Your task to perform on an android device: Do I have any events this weekend? Image 0: 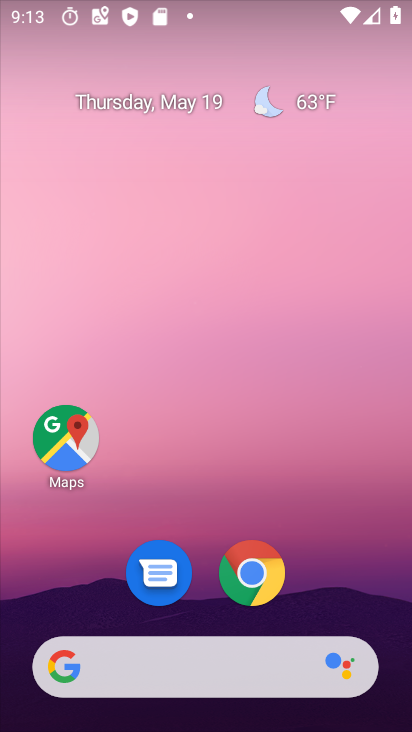
Step 0: drag from (384, 619) to (373, 0)
Your task to perform on an android device: Do I have any events this weekend? Image 1: 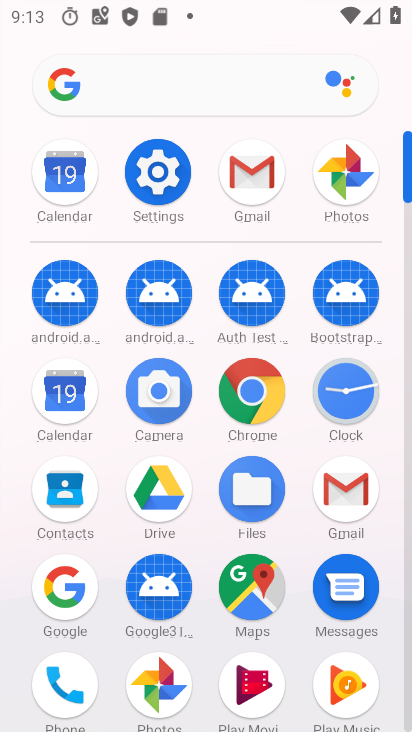
Step 1: click (69, 180)
Your task to perform on an android device: Do I have any events this weekend? Image 2: 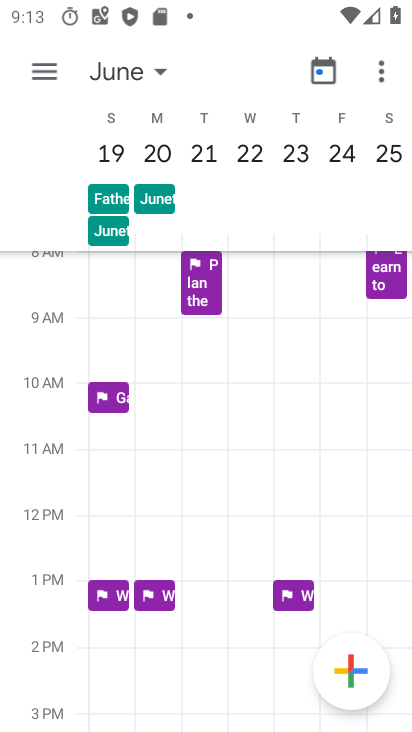
Step 2: click (323, 66)
Your task to perform on an android device: Do I have any events this weekend? Image 3: 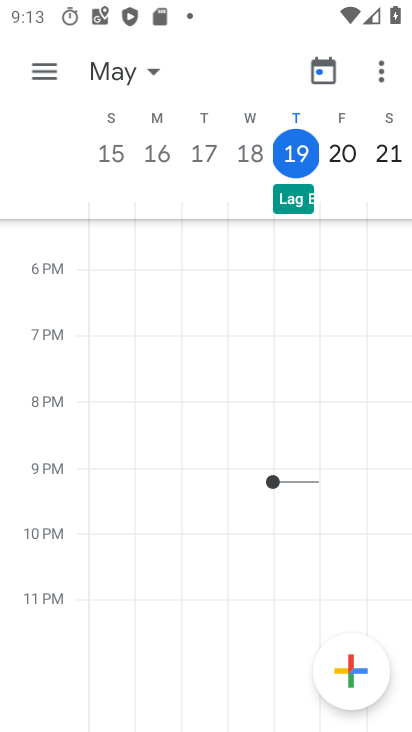
Step 3: click (37, 69)
Your task to perform on an android device: Do I have any events this weekend? Image 4: 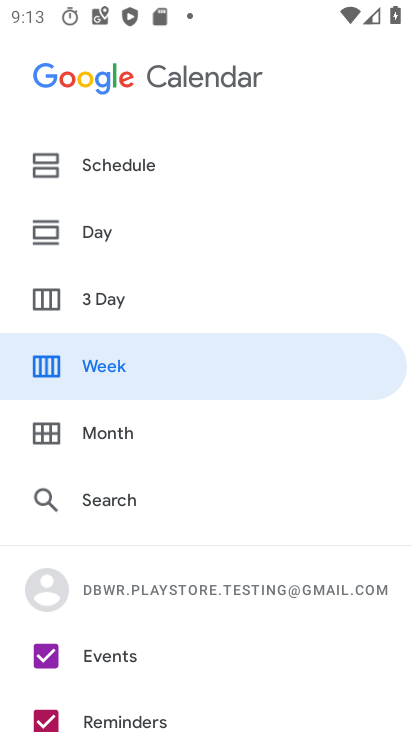
Step 4: drag from (117, 564) to (90, 232)
Your task to perform on an android device: Do I have any events this weekend? Image 5: 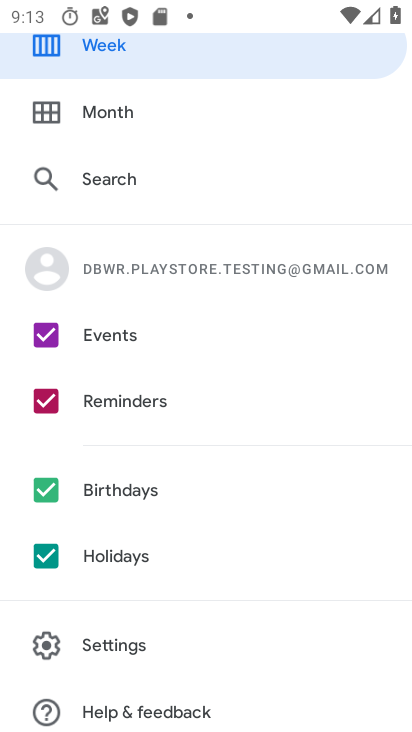
Step 5: click (55, 401)
Your task to perform on an android device: Do I have any events this weekend? Image 6: 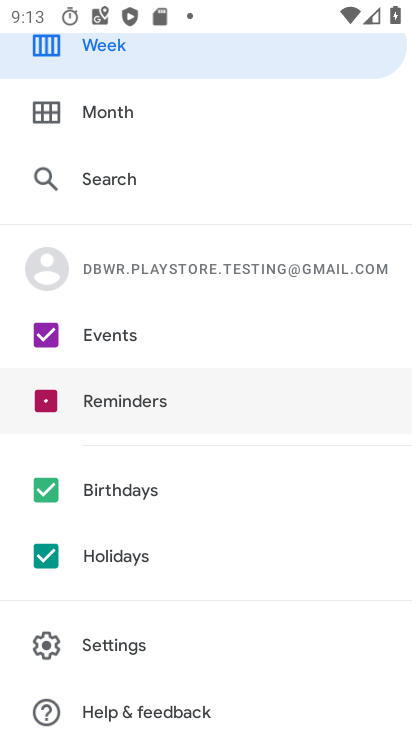
Step 6: click (54, 500)
Your task to perform on an android device: Do I have any events this weekend? Image 7: 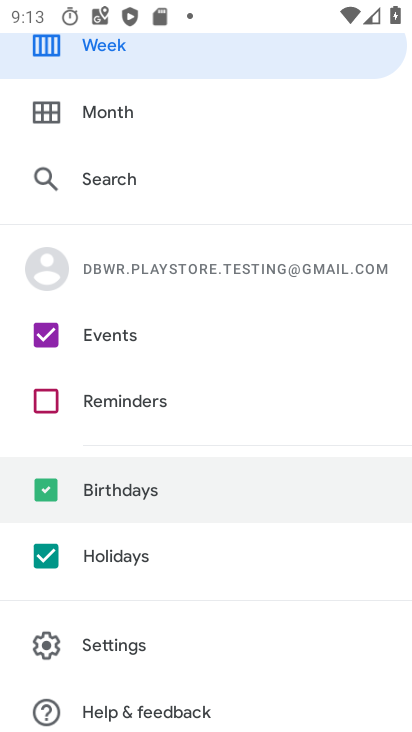
Step 7: click (53, 560)
Your task to perform on an android device: Do I have any events this weekend? Image 8: 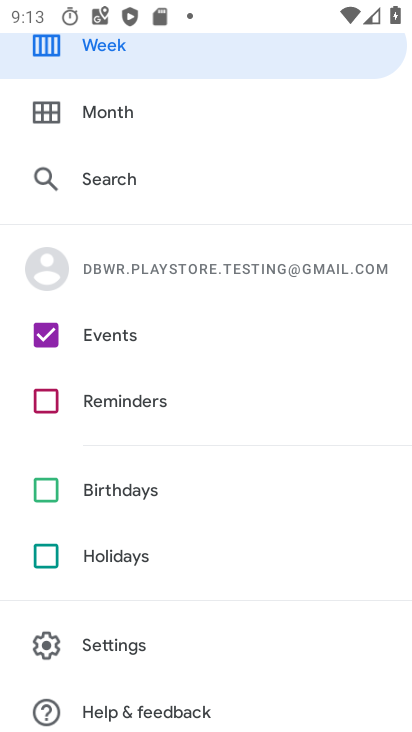
Step 8: drag from (190, 150) to (190, 407)
Your task to perform on an android device: Do I have any events this weekend? Image 9: 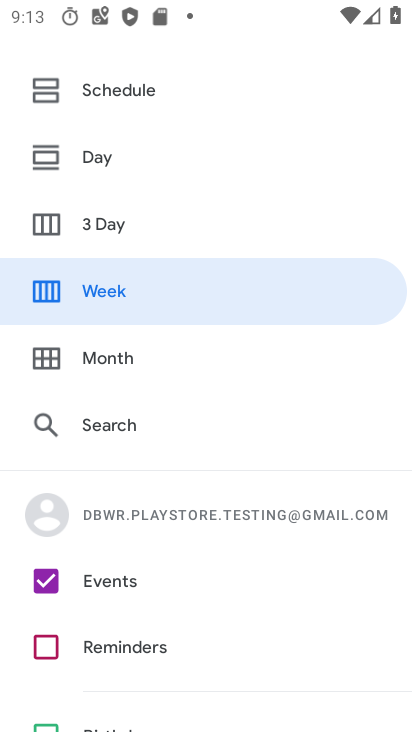
Step 9: click (109, 296)
Your task to perform on an android device: Do I have any events this weekend? Image 10: 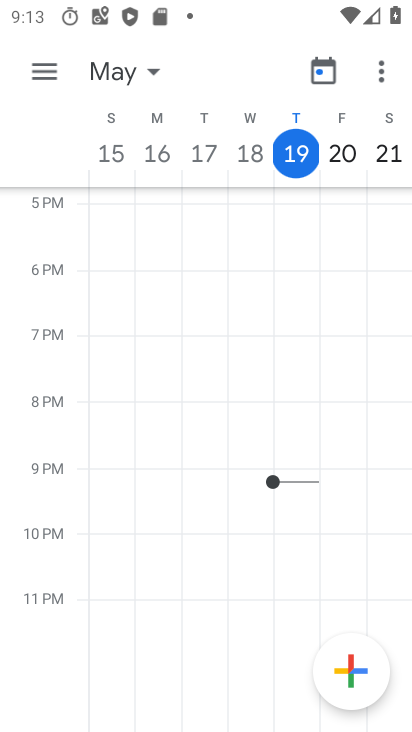
Step 10: task complete